Your task to perform on an android device: delete browsing data in the chrome app Image 0: 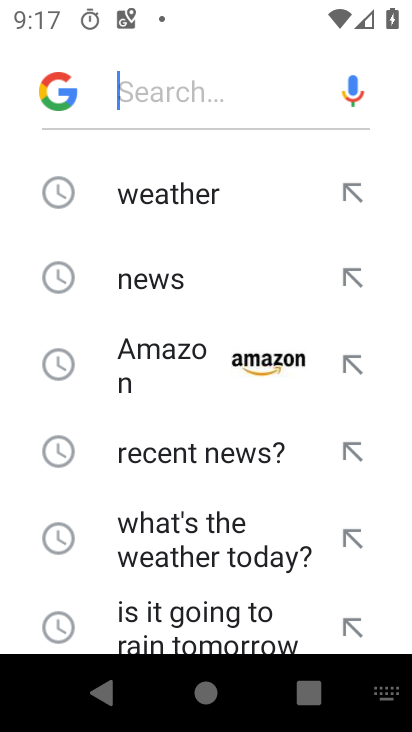
Step 0: press back button
Your task to perform on an android device: delete browsing data in the chrome app Image 1: 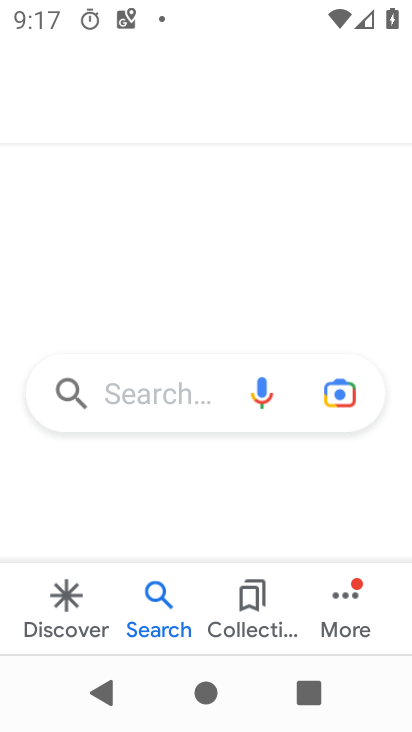
Step 1: press back button
Your task to perform on an android device: delete browsing data in the chrome app Image 2: 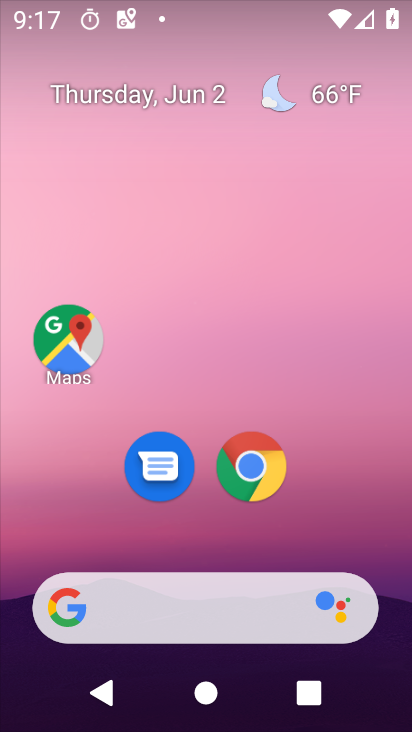
Step 2: click (244, 465)
Your task to perform on an android device: delete browsing data in the chrome app Image 3: 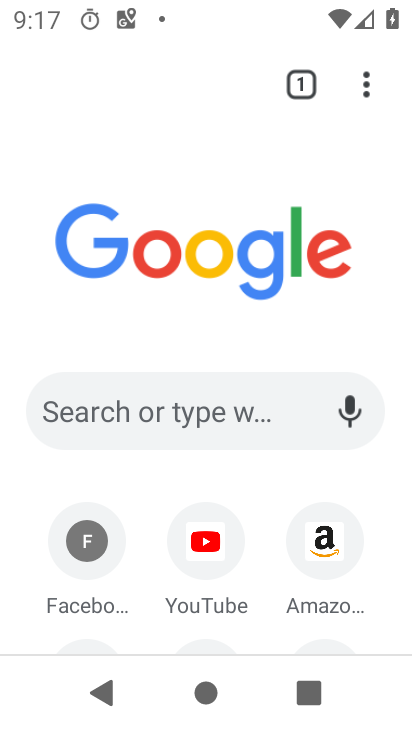
Step 3: click (361, 90)
Your task to perform on an android device: delete browsing data in the chrome app Image 4: 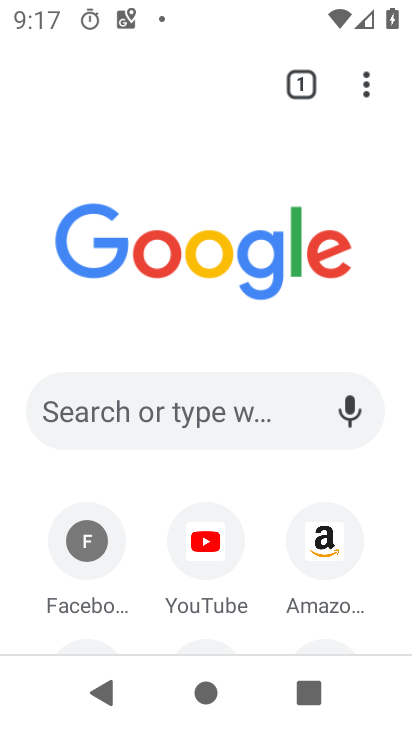
Step 4: click (373, 84)
Your task to perform on an android device: delete browsing data in the chrome app Image 5: 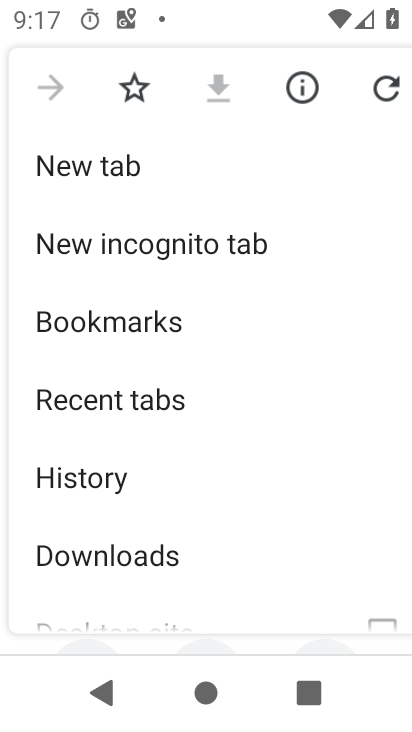
Step 5: click (58, 475)
Your task to perform on an android device: delete browsing data in the chrome app Image 6: 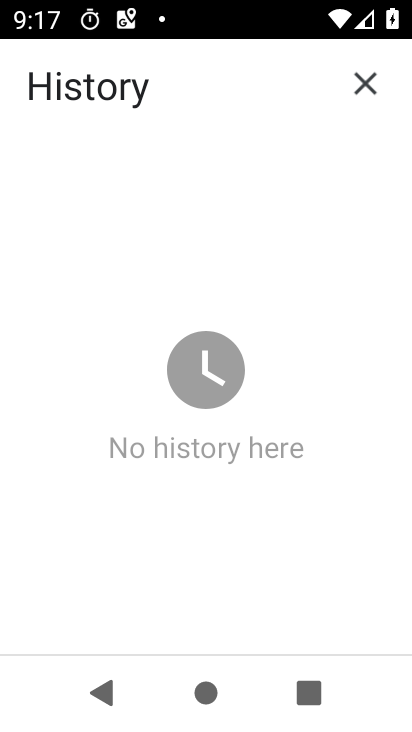
Step 6: task complete